Your task to perform on an android device: Go to location settings Image 0: 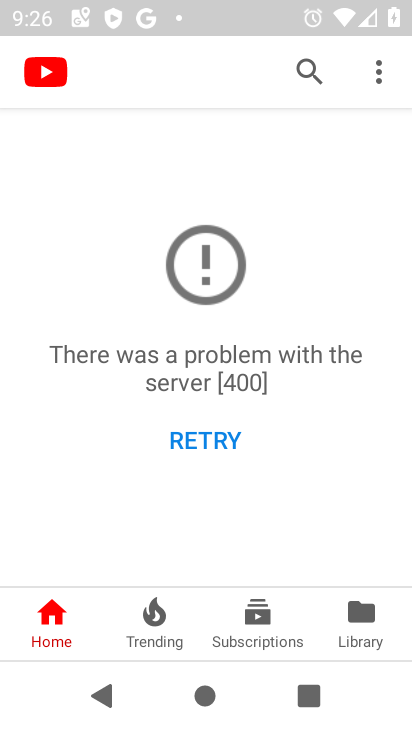
Step 0: press home button
Your task to perform on an android device: Go to location settings Image 1: 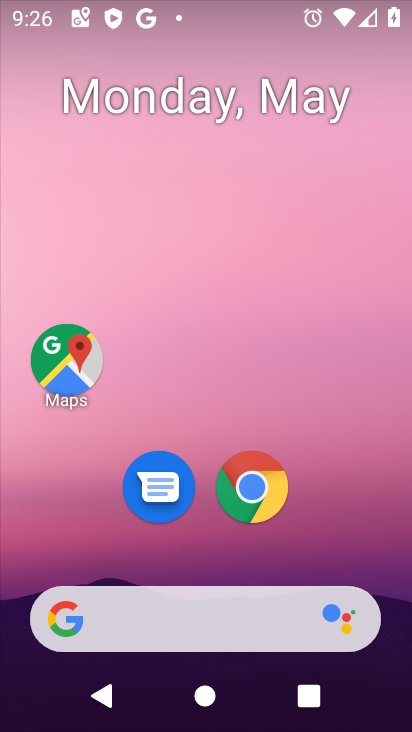
Step 1: drag from (219, 550) to (226, 114)
Your task to perform on an android device: Go to location settings Image 2: 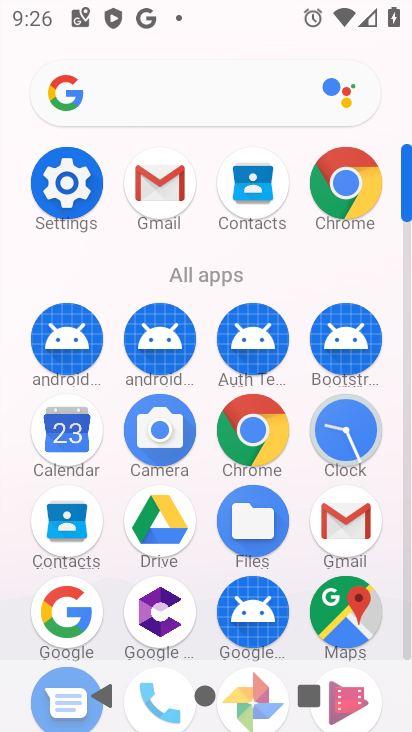
Step 2: click (49, 197)
Your task to perform on an android device: Go to location settings Image 3: 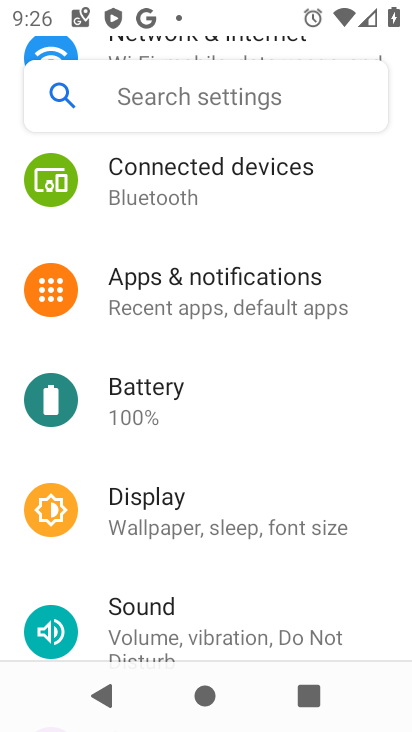
Step 3: drag from (132, 578) to (296, 17)
Your task to perform on an android device: Go to location settings Image 4: 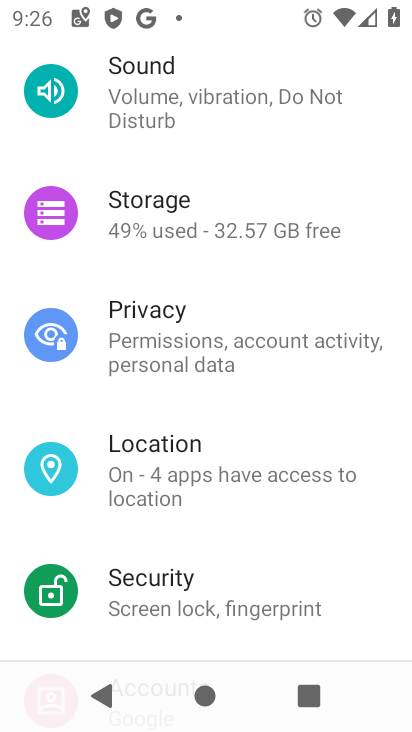
Step 4: click (179, 462)
Your task to perform on an android device: Go to location settings Image 5: 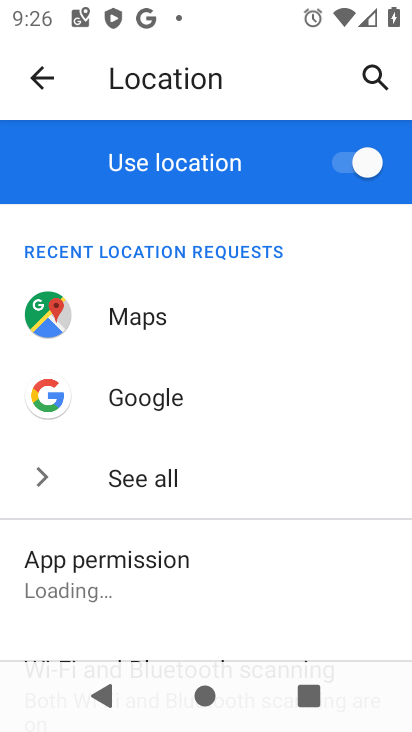
Step 5: task complete